Your task to perform on an android device: find which apps use the phone's location Image 0: 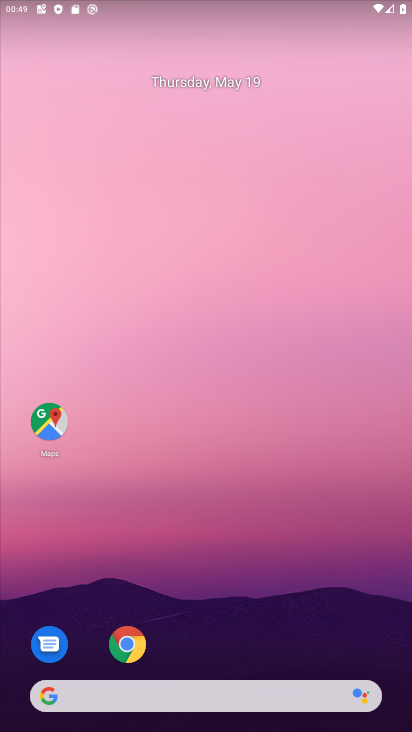
Step 0: drag from (348, 660) to (342, 130)
Your task to perform on an android device: find which apps use the phone's location Image 1: 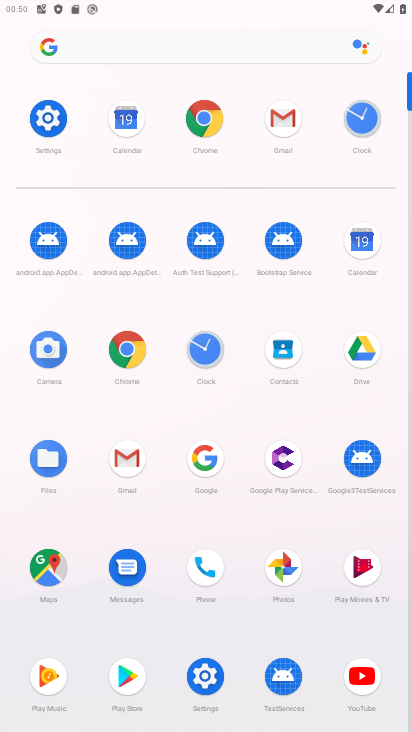
Step 1: click (42, 124)
Your task to perform on an android device: find which apps use the phone's location Image 2: 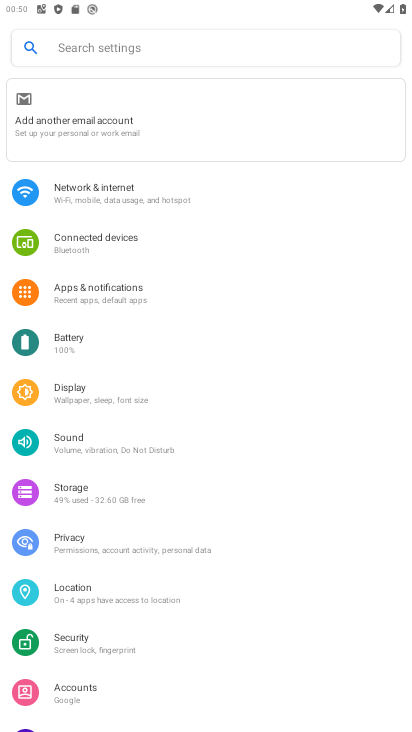
Step 2: click (113, 595)
Your task to perform on an android device: find which apps use the phone's location Image 3: 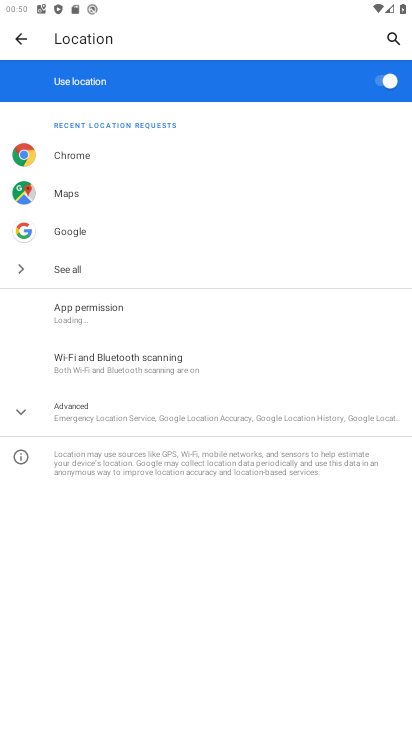
Step 3: click (59, 410)
Your task to perform on an android device: find which apps use the phone's location Image 4: 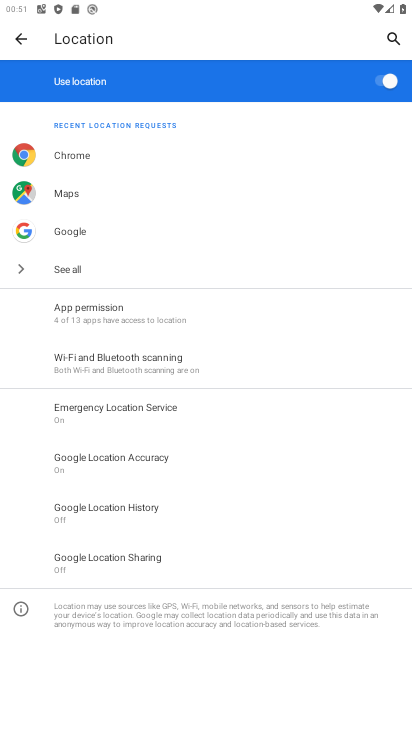
Step 4: task complete